Your task to perform on an android device: Check the weather Image 0: 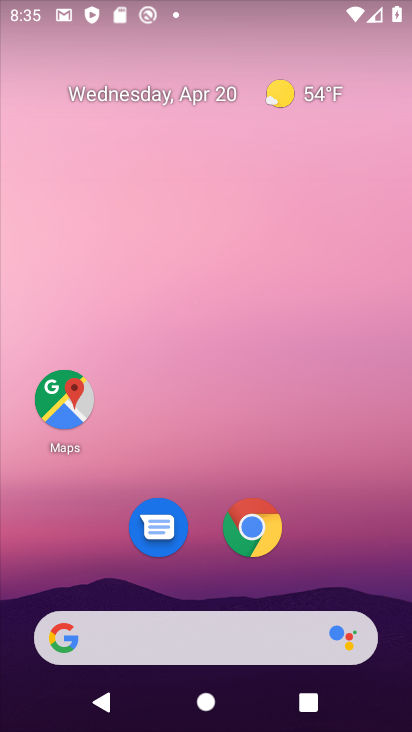
Step 0: drag from (297, 174) to (301, 74)
Your task to perform on an android device: Check the weather Image 1: 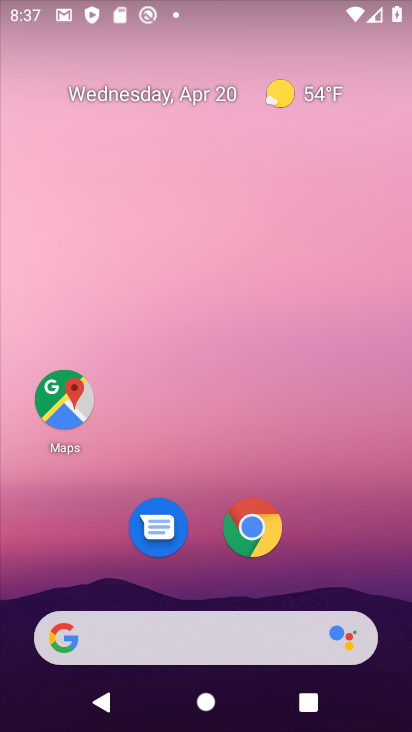
Step 1: click (246, 546)
Your task to perform on an android device: Check the weather Image 2: 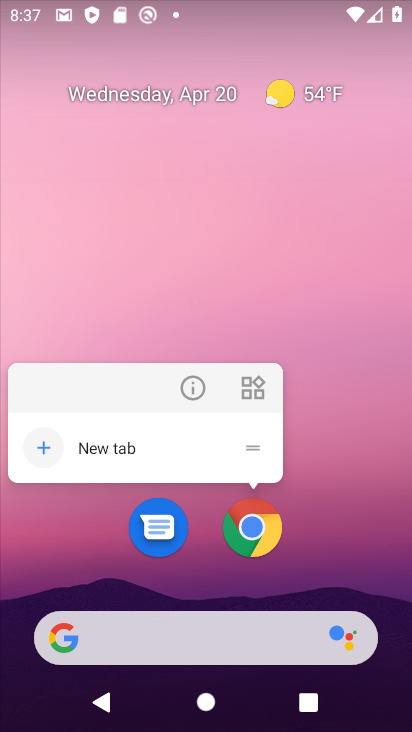
Step 2: click (251, 533)
Your task to perform on an android device: Check the weather Image 3: 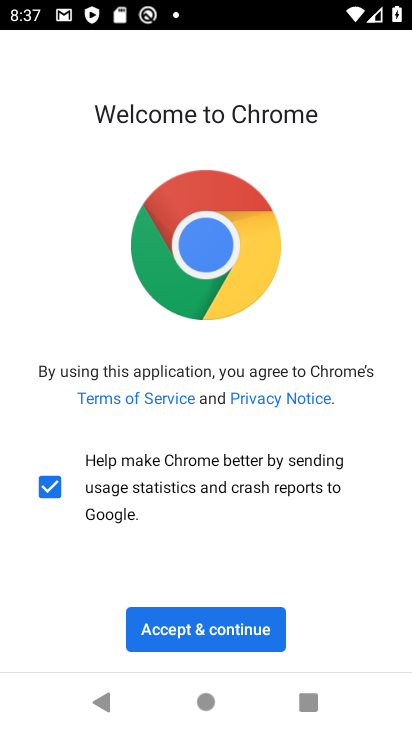
Step 3: click (182, 626)
Your task to perform on an android device: Check the weather Image 4: 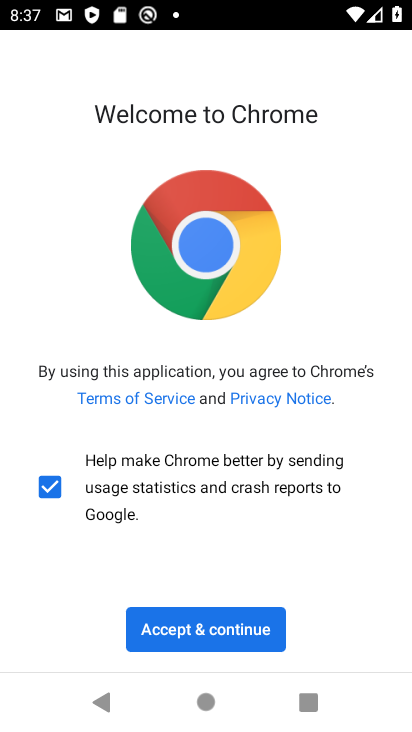
Step 4: click (182, 626)
Your task to perform on an android device: Check the weather Image 5: 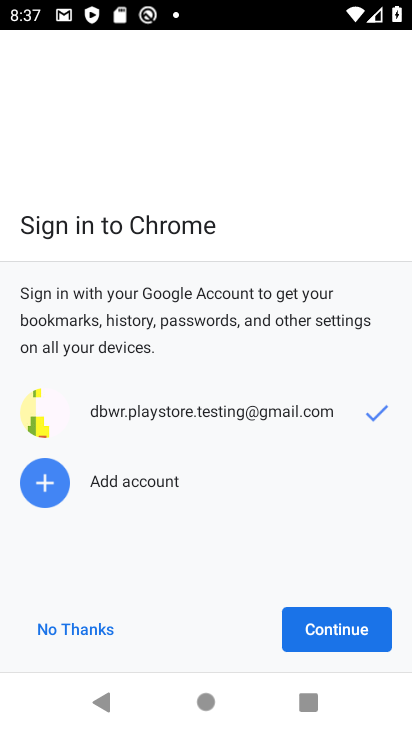
Step 5: click (359, 595)
Your task to perform on an android device: Check the weather Image 6: 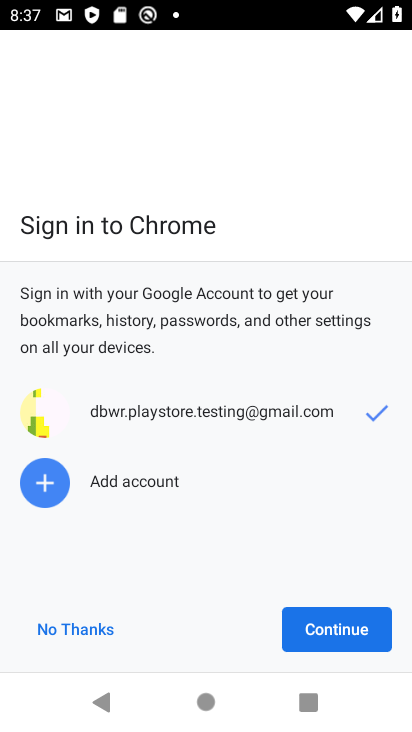
Step 6: click (362, 608)
Your task to perform on an android device: Check the weather Image 7: 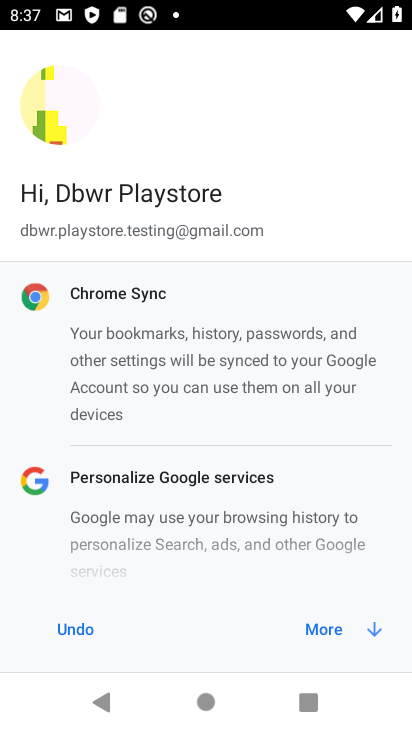
Step 7: click (340, 636)
Your task to perform on an android device: Check the weather Image 8: 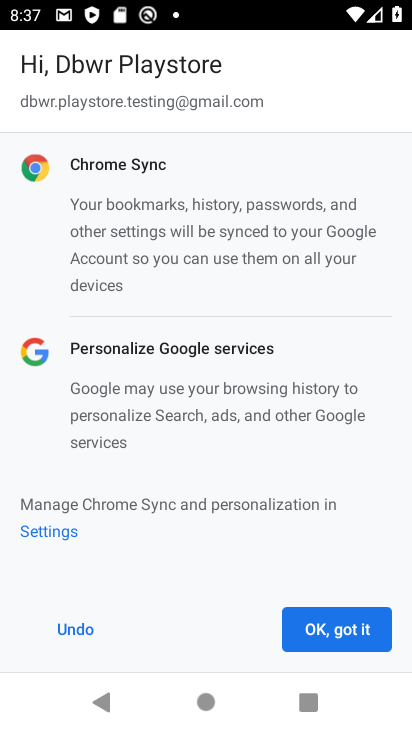
Step 8: click (325, 628)
Your task to perform on an android device: Check the weather Image 9: 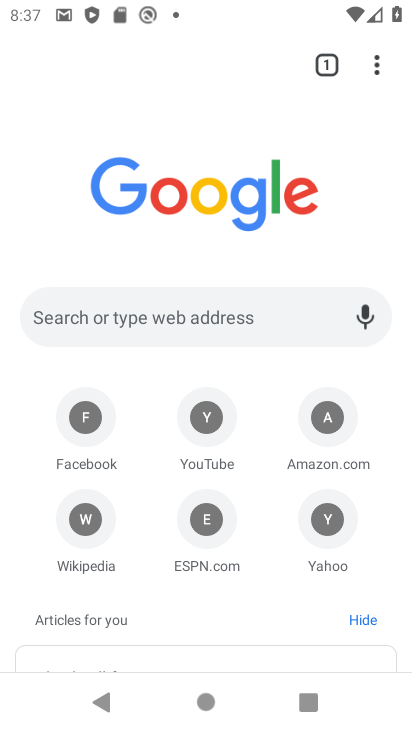
Step 9: click (163, 308)
Your task to perform on an android device: Check the weather Image 10: 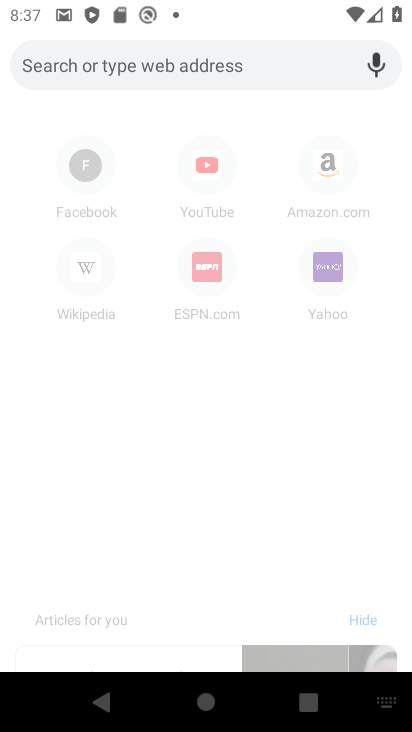
Step 10: click (237, 71)
Your task to perform on an android device: Check the weather Image 11: 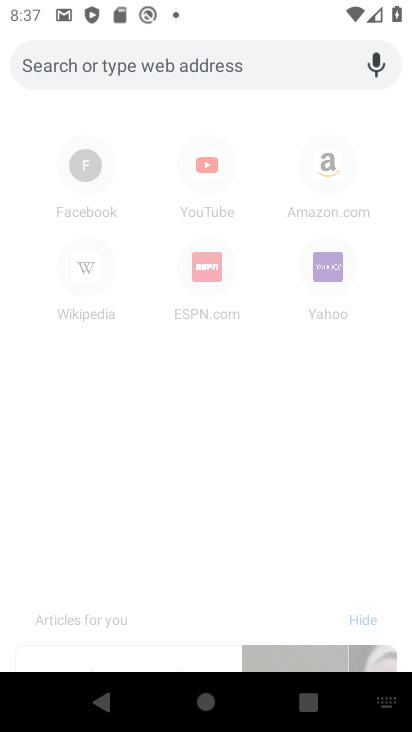
Step 11: type "Check the weather"
Your task to perform on an android device: Check the weather Image 12: 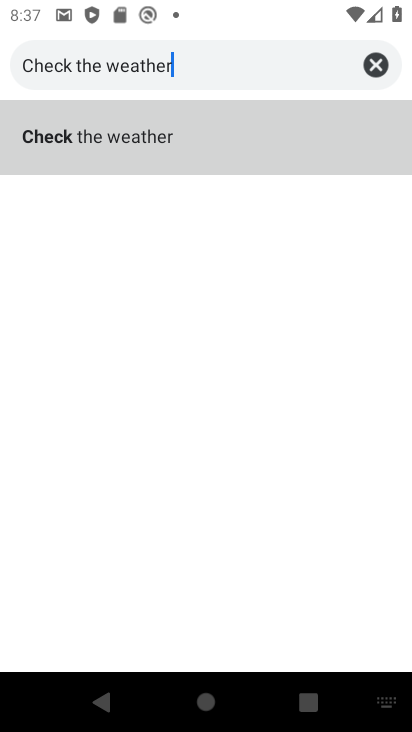
Step 12: click (379, 67)
Your task to perform on an android device: Check the weather Image 13: 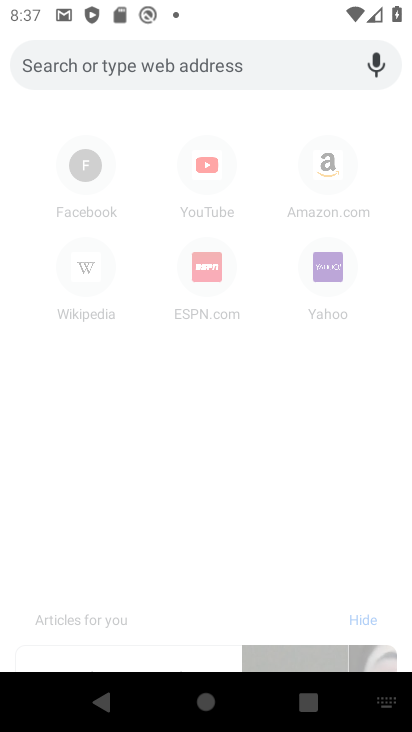
Step 13: click (373, 64)
Your task to perform on an android device: Check the weather Image 14: 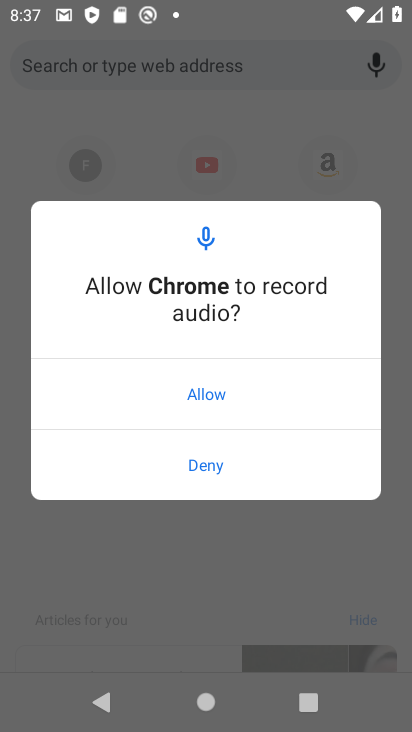
Step 14: click (307, 553)
Your task to perform on an android device: Check the weather Image 15: 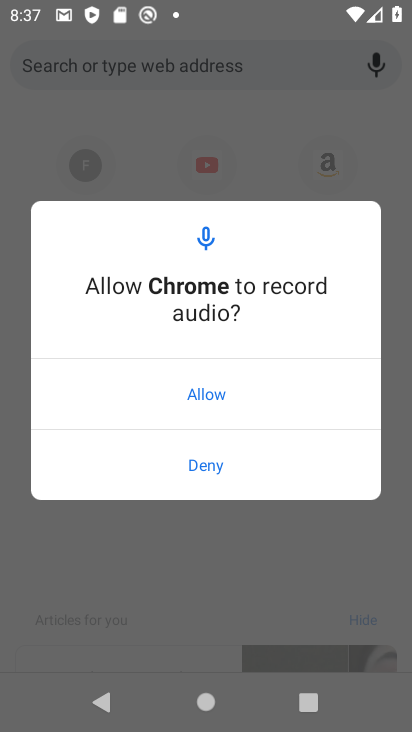
Step 15: click (306, 553)
Your task to perform on an android device: Check the weather Image 16: 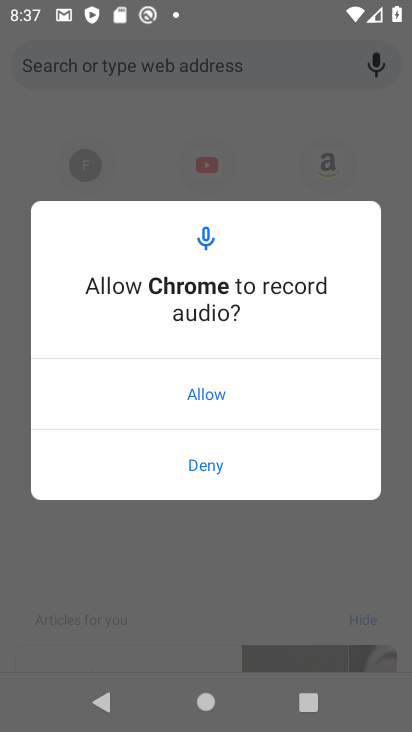
Step 16: click (216, 461)
Your task to perform on an android device: Check the weather Image 17: 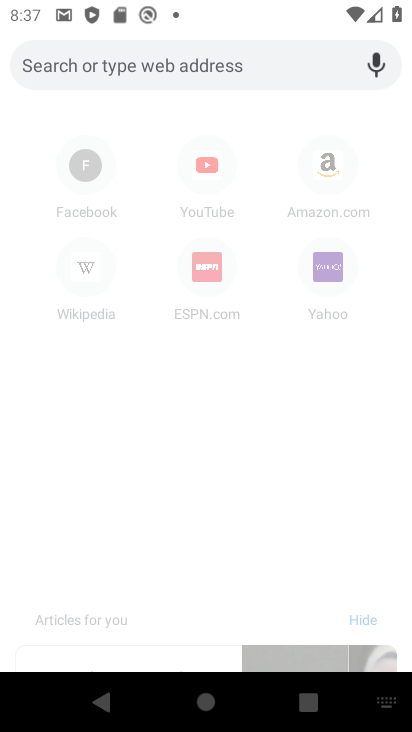
Step 17: click (149, 66)
Your task to perform on an android device: Check the weather Image 18: 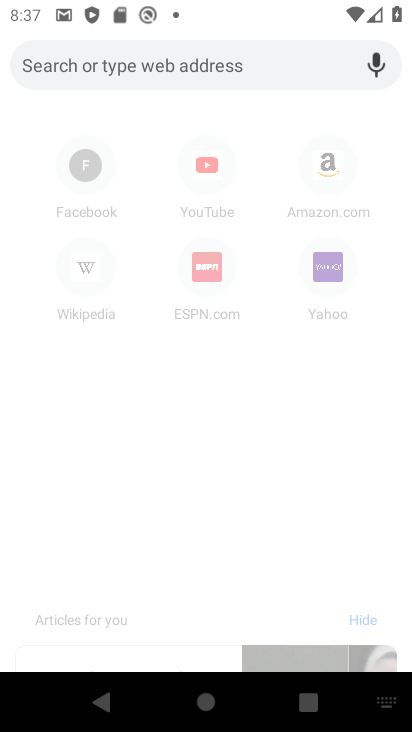
Step 18: type " weather"
Your task to perform on an android device: Check the weather Image 19: 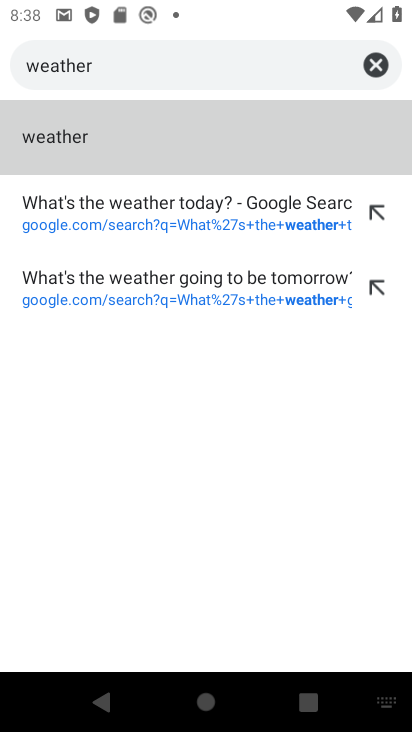
Step 19: click (107, 125)
Your task to perform on an android device: Check the weather Image 20: 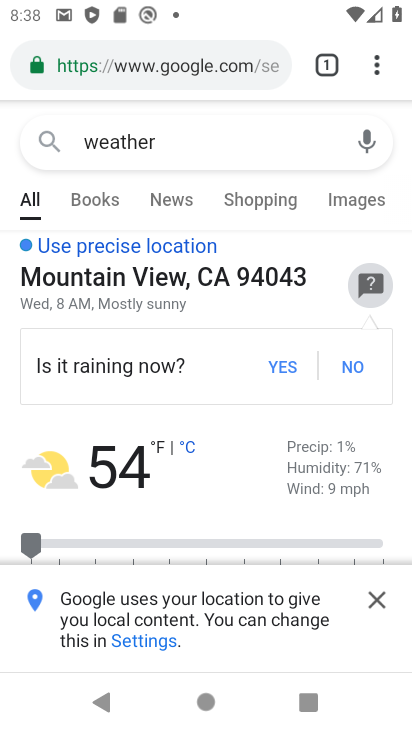
Step 20: task complete